Your task to perform on an android device: turn off picture-in-picture Image 0: 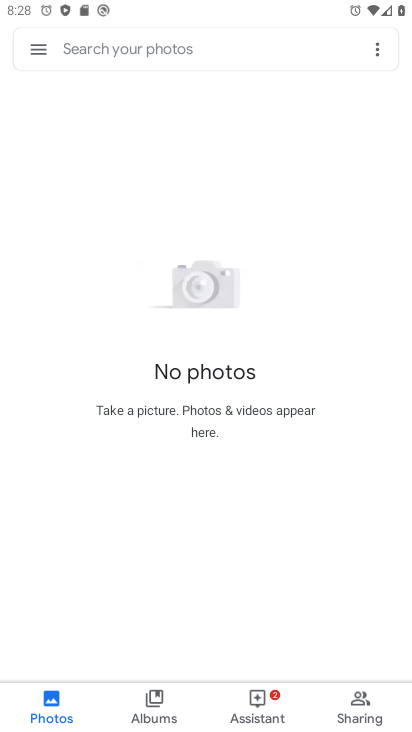
Step 0: press home button
Your task to perform on an android device: turn off picture-in-picture Image 1: 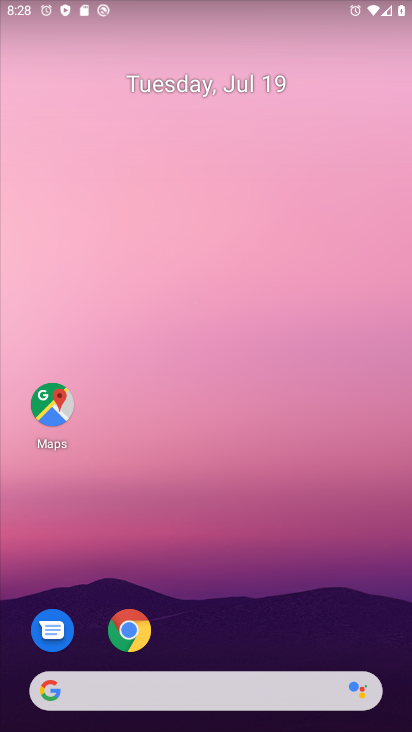
Step 1: drag from (208, 610) to (211, 281)
Your task to perform on an android device: turn off picture-in-picture Image 2: 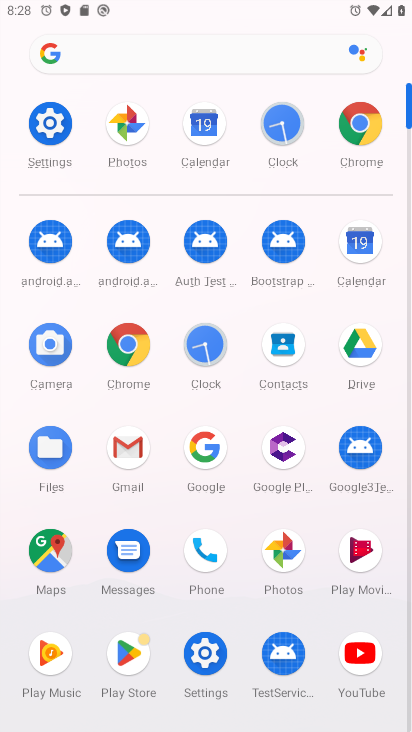
Step 2: click (278, 545)
Your task to perform on an android device: turn off picture-in-picture Image 3: 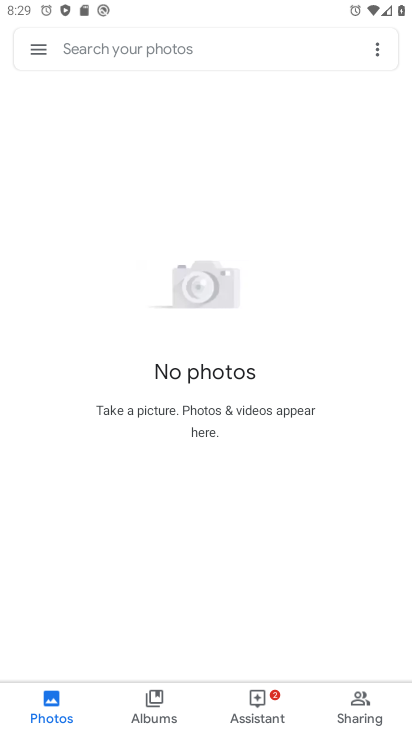
Step 3: task complete